Your task to perform on an android device: add a contact Image 0: 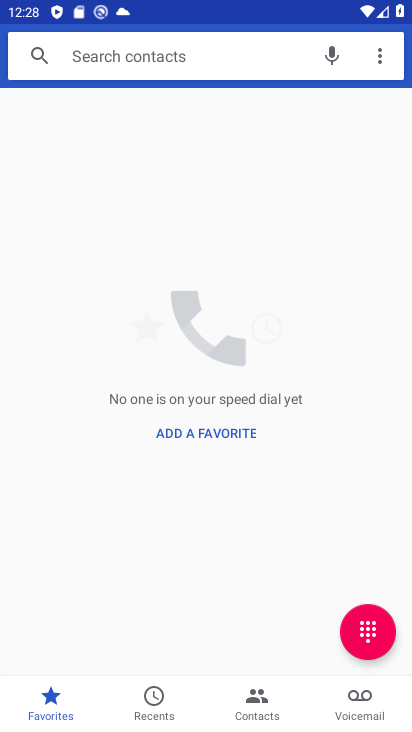
Step 0: press home button
Your task to perform on an android device: add a contact Image 1: 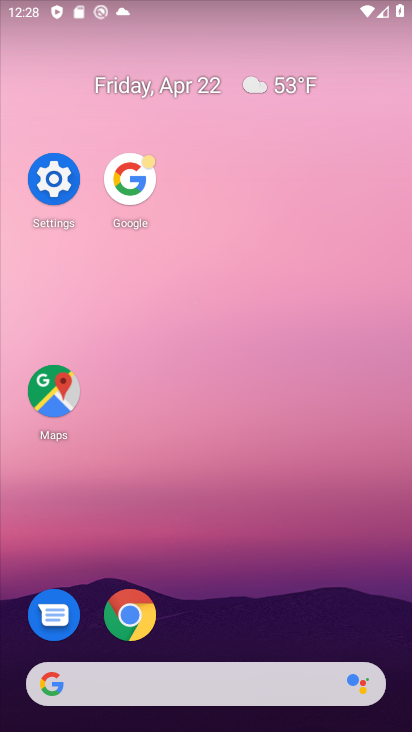
Step 1: click (272, 142)
Your task to perform on an android device: add a contact Image 2: 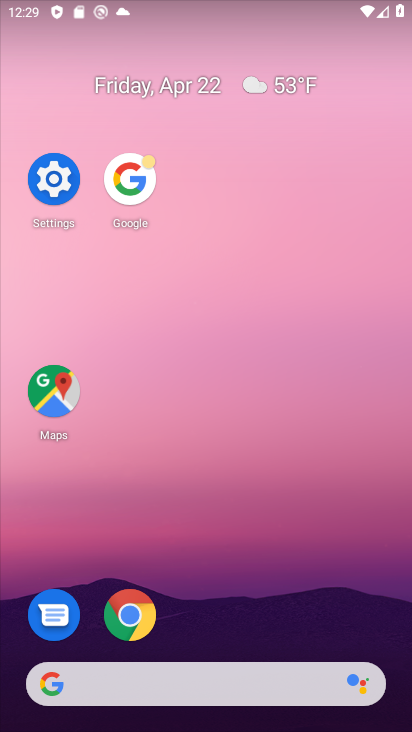
Step 2: drag from (263, 615) to (316, 104)
Your task to perform on an android device: add a contact Image 3: 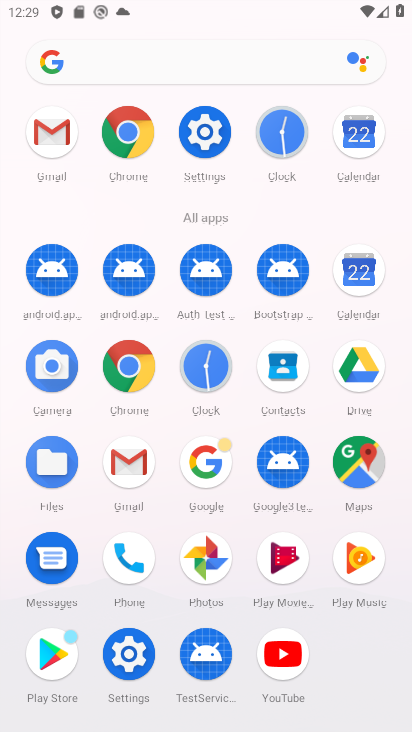
Step 3: click (270, 363)
Your task to perform on an android device: add a contact Image 4: 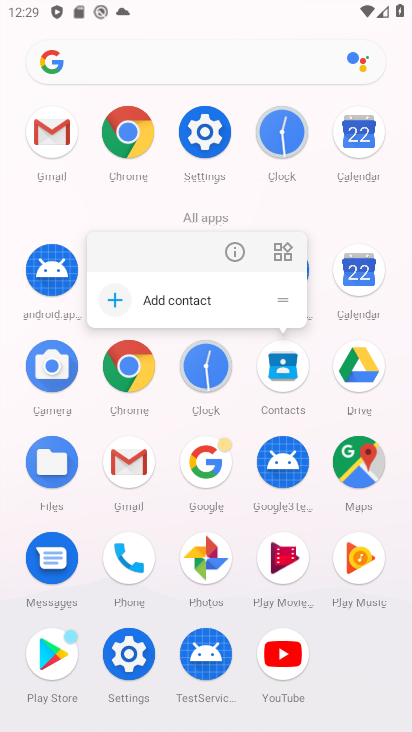
Step 4: click (296, 376)
Your task to perform on an android device: add a contact Image 5: 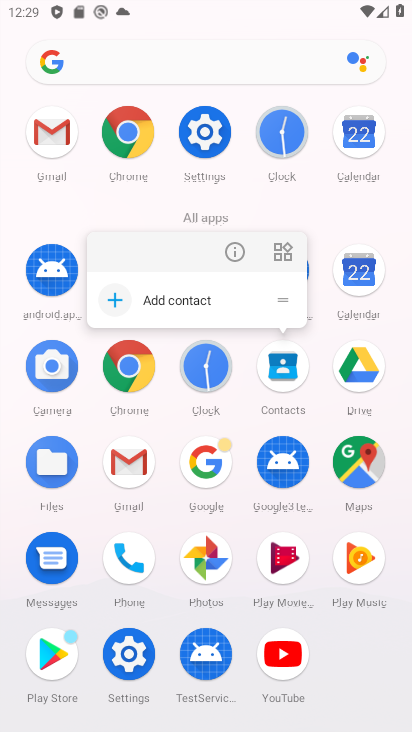
Step 5: click (203, 310)
Your task to perform on an android device: add a contact Image 6: 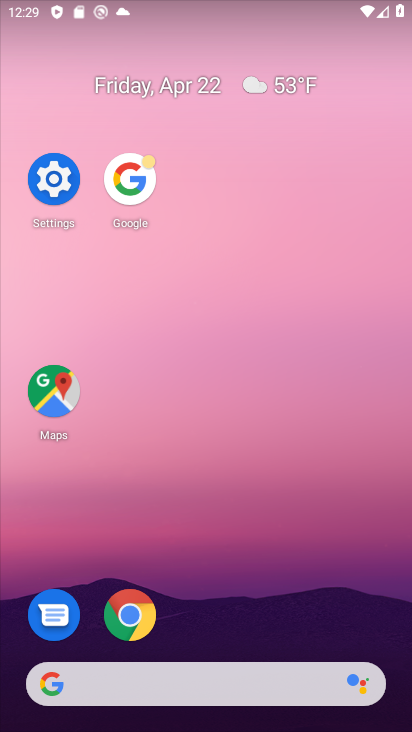
Step 6: drag from (227, 625) to (274, 168)
Your task to perform on an android device: add a contact Image 7: 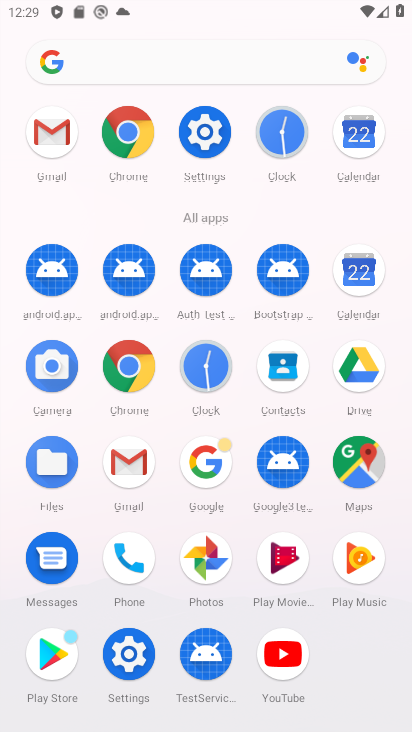
Step 7: click (290, 383)
Your task to perform on an android device: add a contact Image 8: 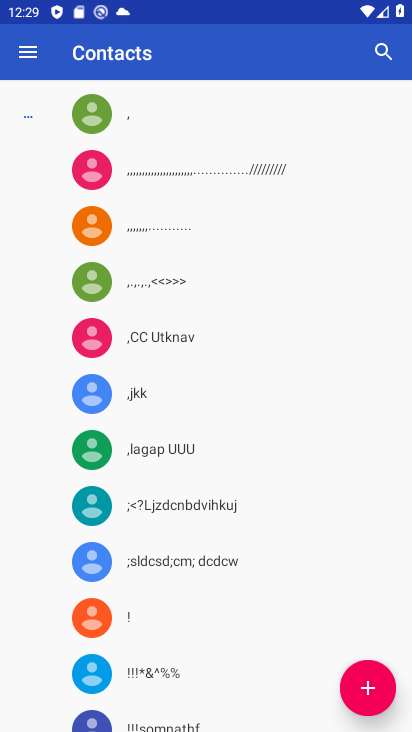
Step 8: click (360, 686)
Your task to perform on an android device: add a contact Image 9: 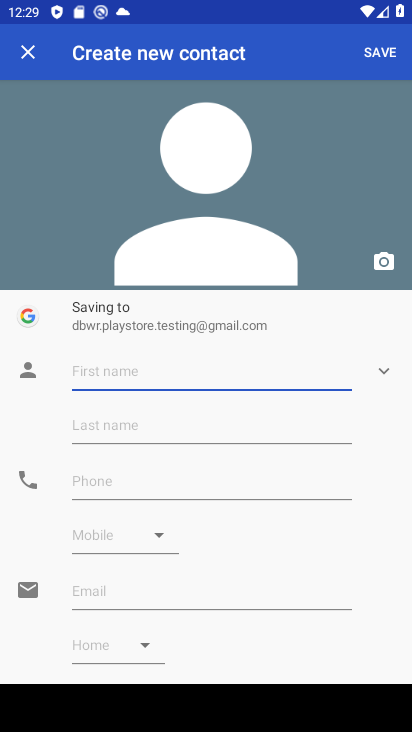
Step 9: type "tvs"
Your task to perform on an android device: add a contact Image 10: 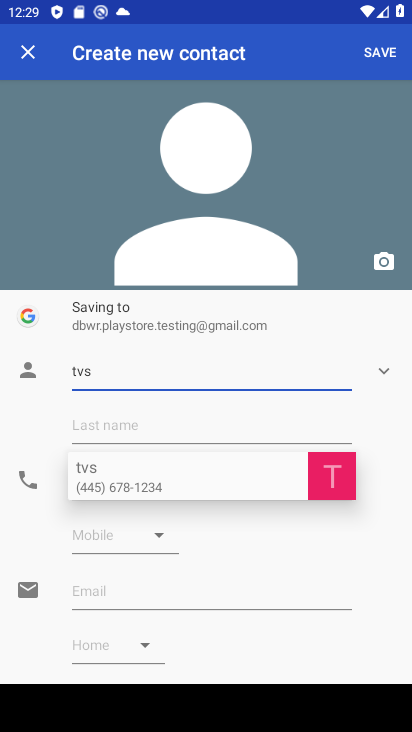
Step 10: click (189, 490)
Your task to perform on an android device: add a contact Image 11: 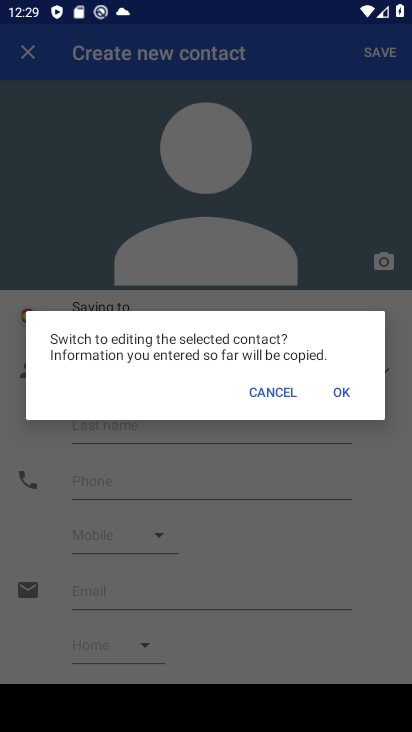
Step 11: click (274, 397)
Your task to perform on an android device: add a contact Image 12: 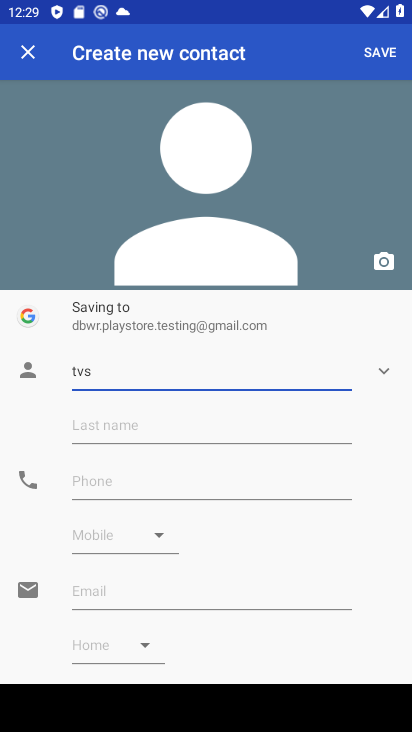
Step 12: click (158, 427)
Your task to perform on an android device: add a contact Image 13: 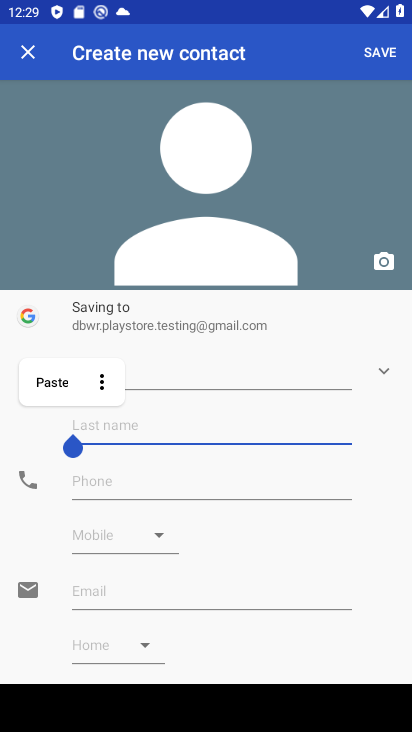
Step 13: click (118, 427)
Your task to perform on an android device: add a contact Image 14: 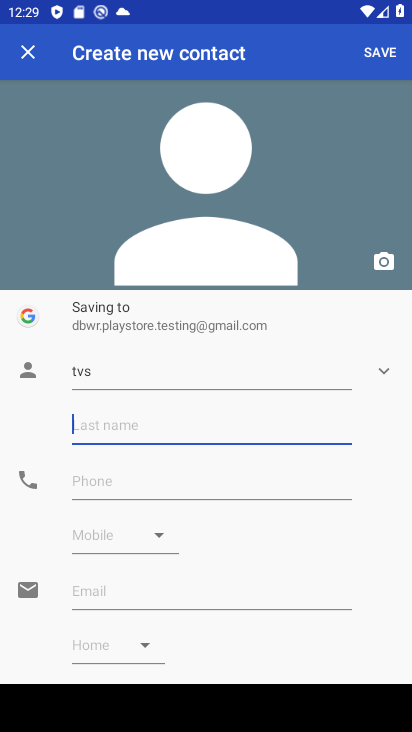
Step 14: type "mrf"
Your task to perform on an android device: add a contact Image 15: 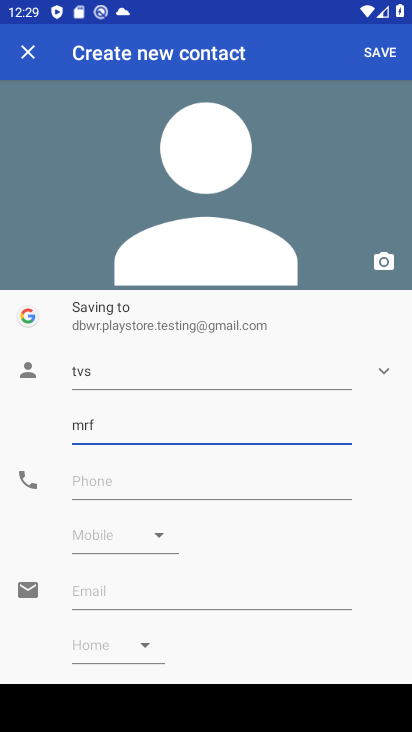
Step 15: click (280, 473)
Your task to perform on an android device: add a contact Image 16: 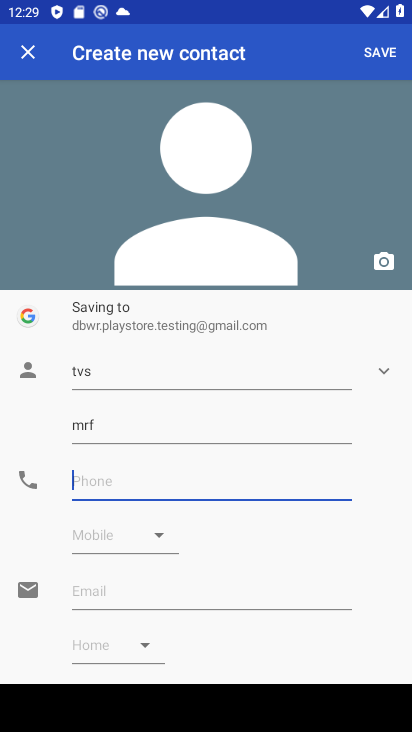
Step 16: type "7765488908"
Your task to perform on an android device: add a contact Image 17: 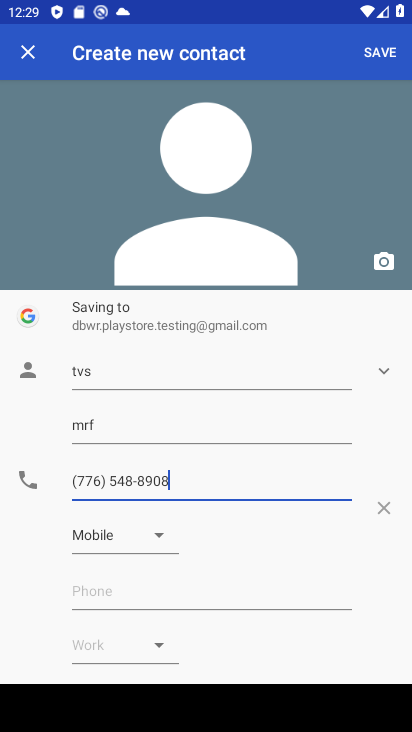
Step 17: click (376, 56)
Your task to perform on an android device: add a contact Image 18: 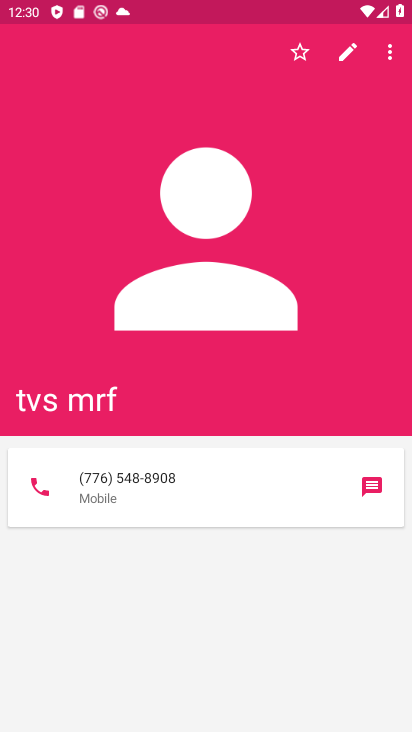
Step 18: task complete